Your task to perform on an android device: Open Google Image 0: 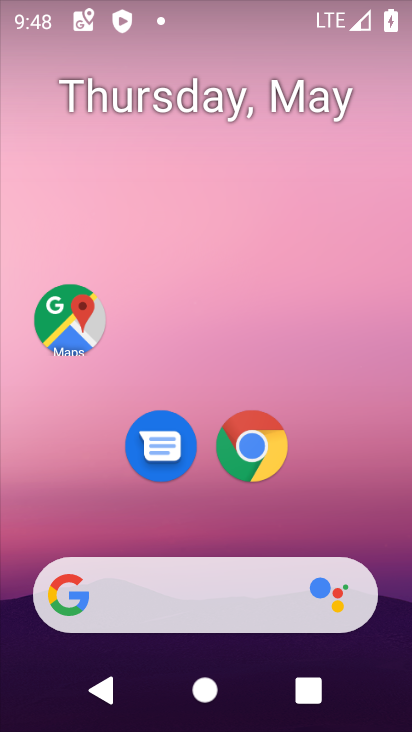
Step 0: click (247, 441)
Your task to perform on an android device: Open Google Image 1: 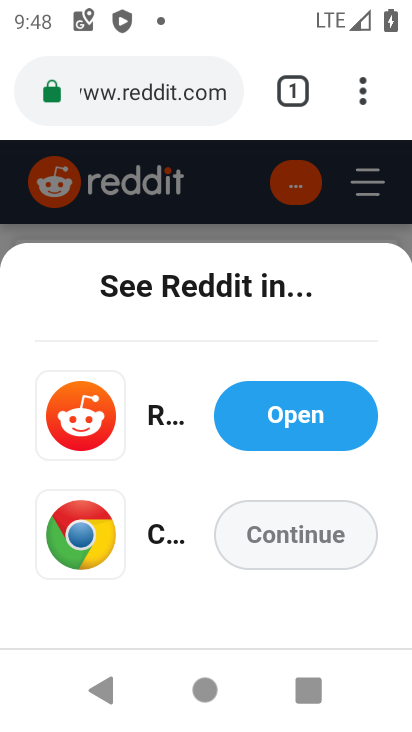
Step 1: press home button
Your task to perform on an android device: Open Google Image 2: 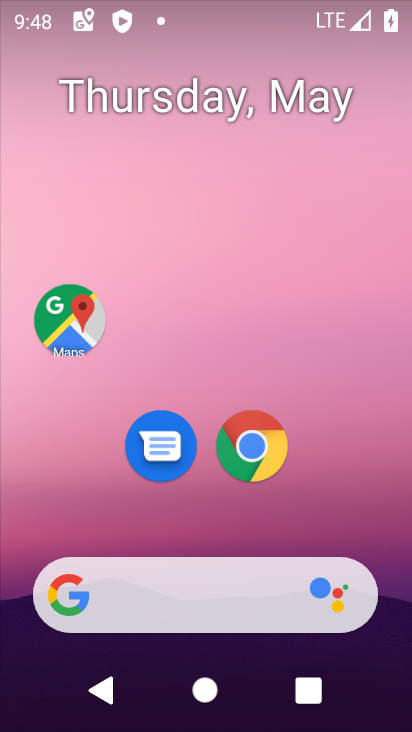
Step 2: click (259, 443)
Your task to perform on an android device: Open Google Image 3: 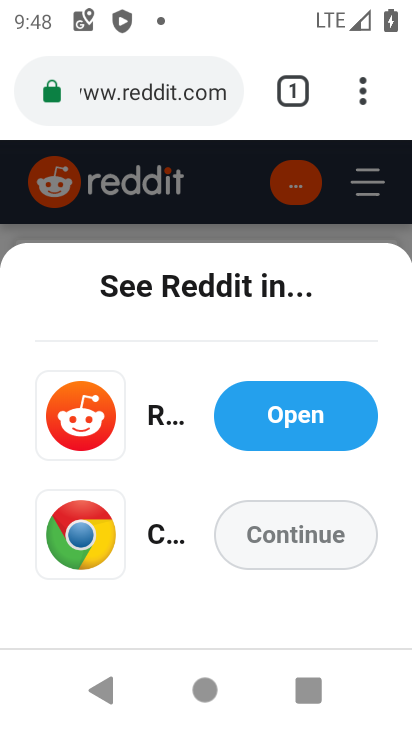
Step 3: task complete